Your task to perform on an android device: Open Google Maps Image 0: 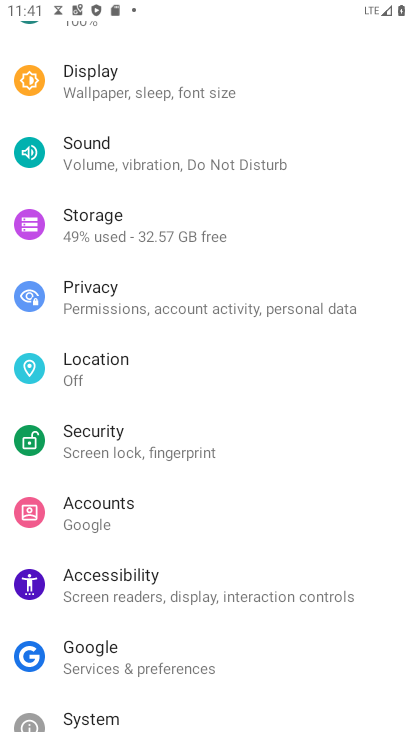
Step 0: press home button
Your task to perform on an android device: Open Google Maps Image 1: 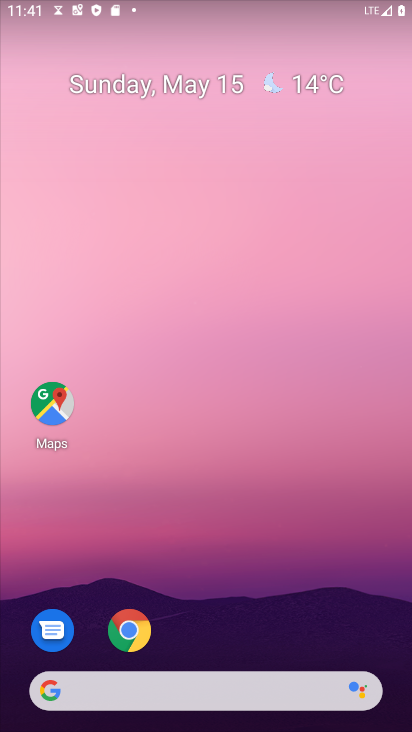
Step 1: click (49, 406)
Your task to perform on an android device: Open Google Maps Image 2: 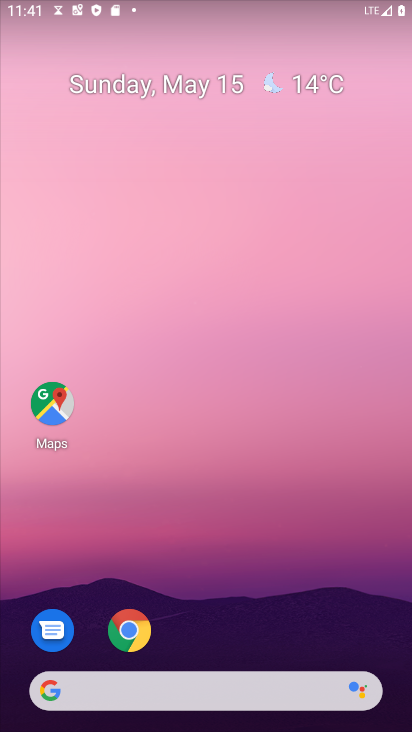
Step 2: click (49, 402)
Your task to perform on an android device: Open Google Maps Image 3: 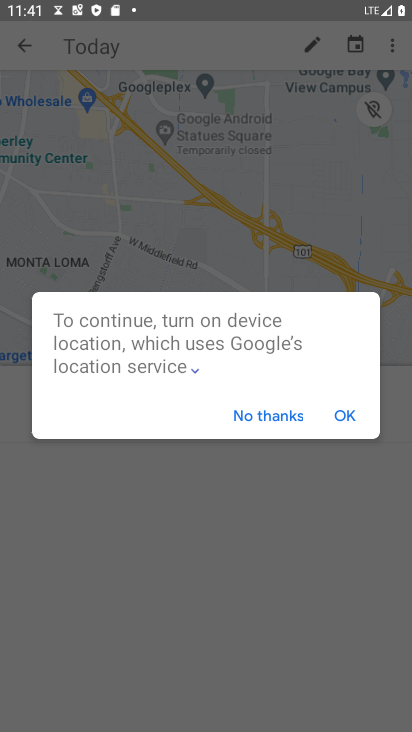
Step 3: click (260, 415)
Your task to perform on an android device: Open Google Maps Image 4: 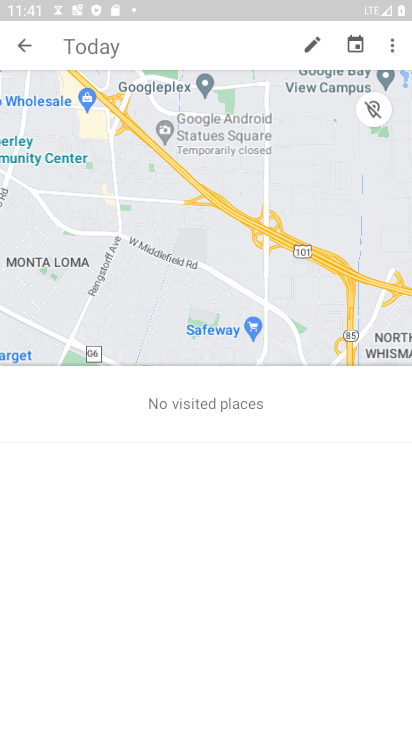
Step 4: task complete